Your task to perform on an android device: View the shopping cart on newegg. Image 0: 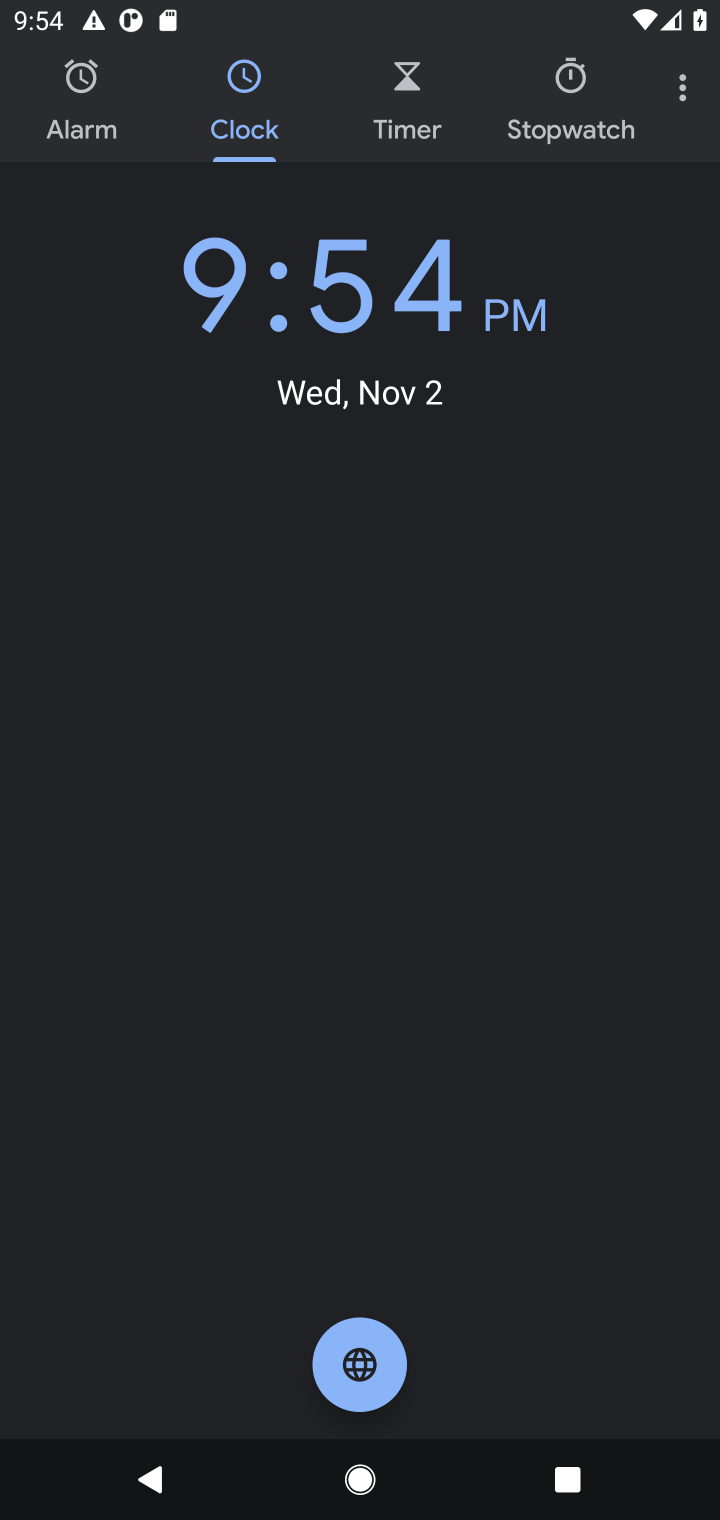
Step 0: press home button
Your task to perform on an android device: View the shopping cart on newegg. Image 1: 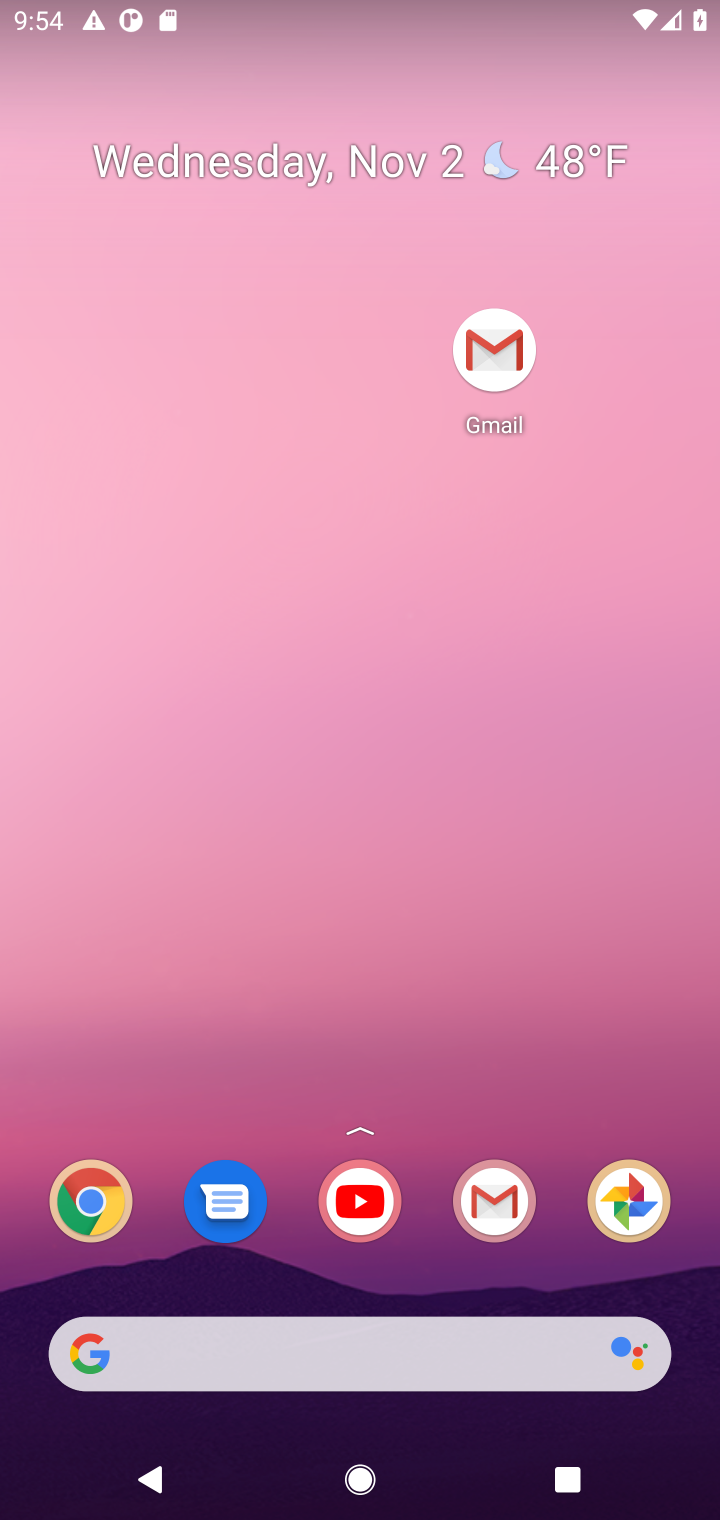
Step 1: drag from (422, 1256) to (245, 205)
Your task to perform on an android device: View the shopping cart on newegg. Image 2: 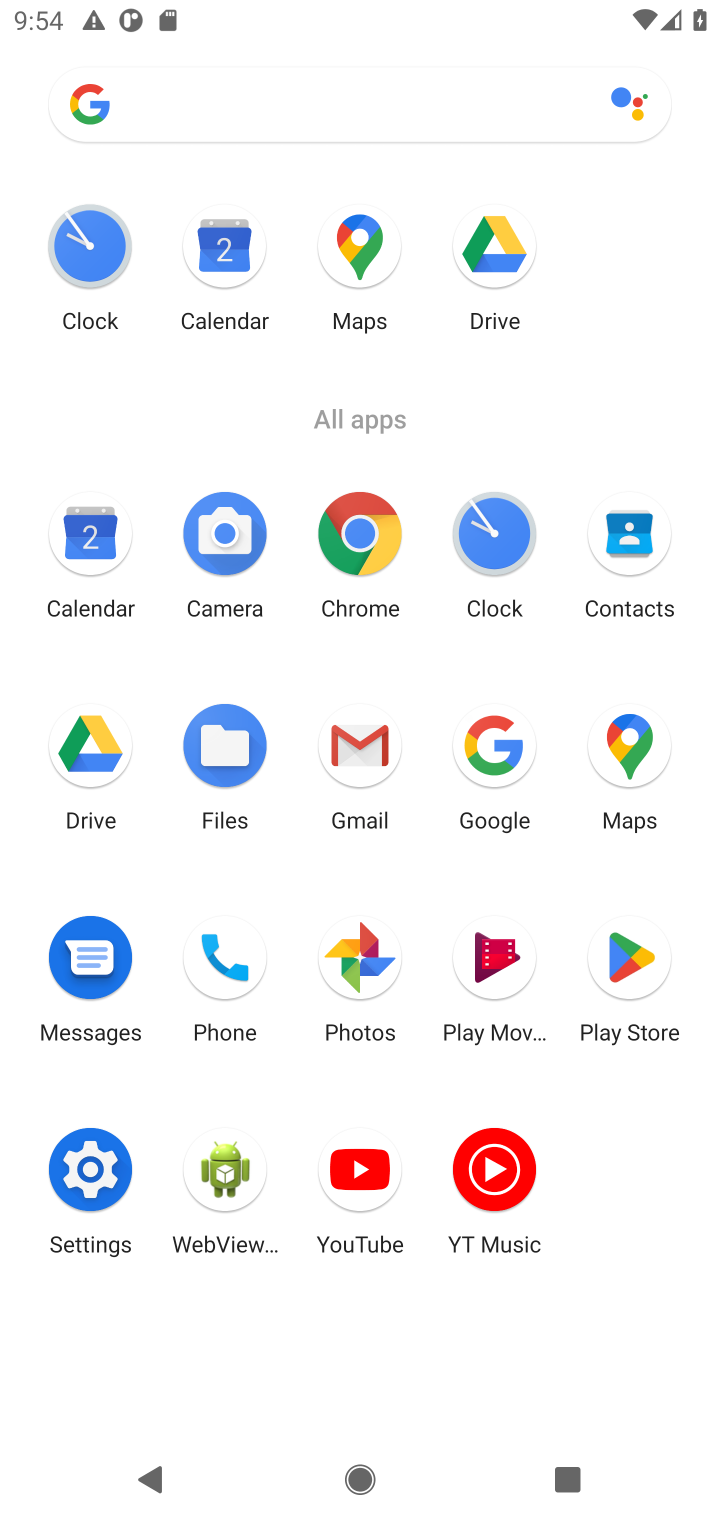
Step 2: click (363, 534)
Your task to perform on an android device: View the shopping cart on newegg. Image 3: 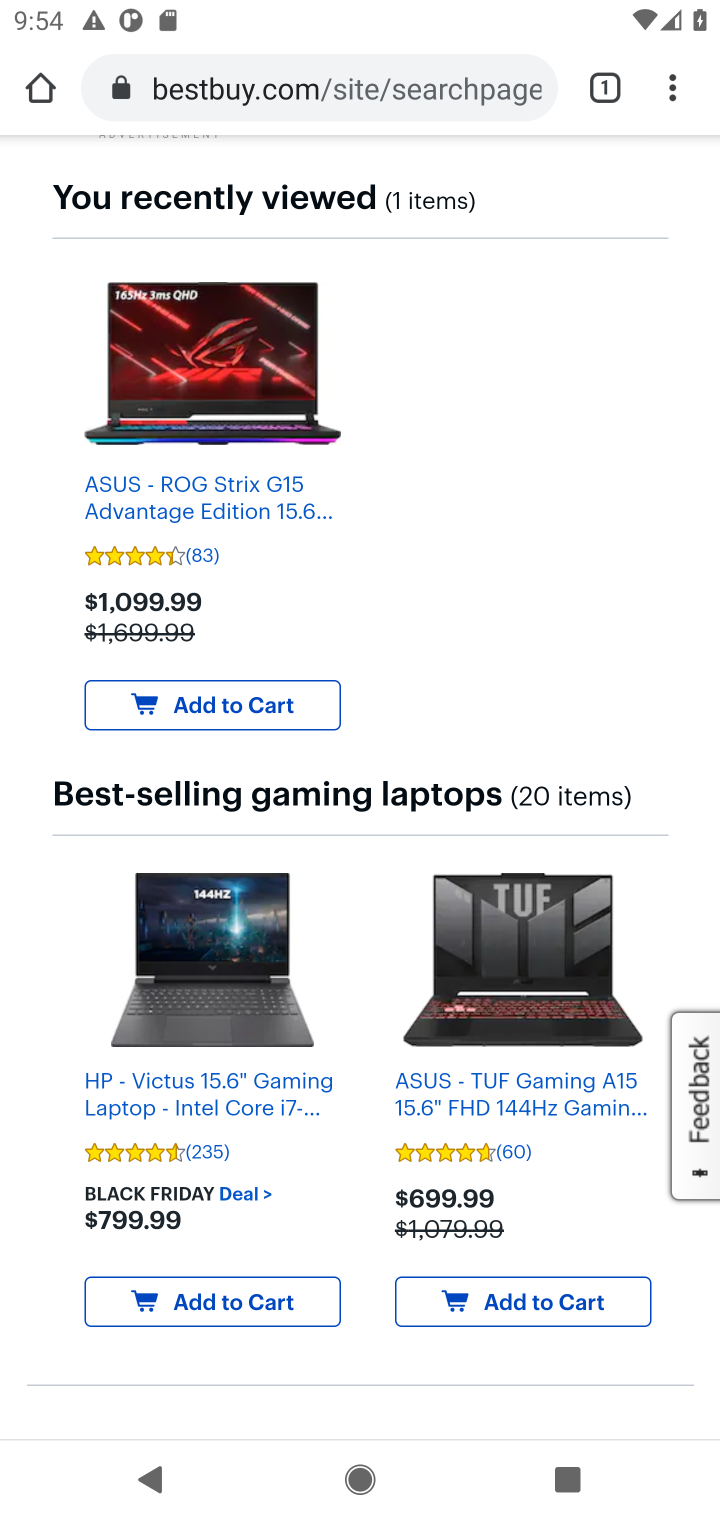
Step 3: click (319, 96)
Your task to perform on an android device: View the shopping cart on newegg. Image 4: 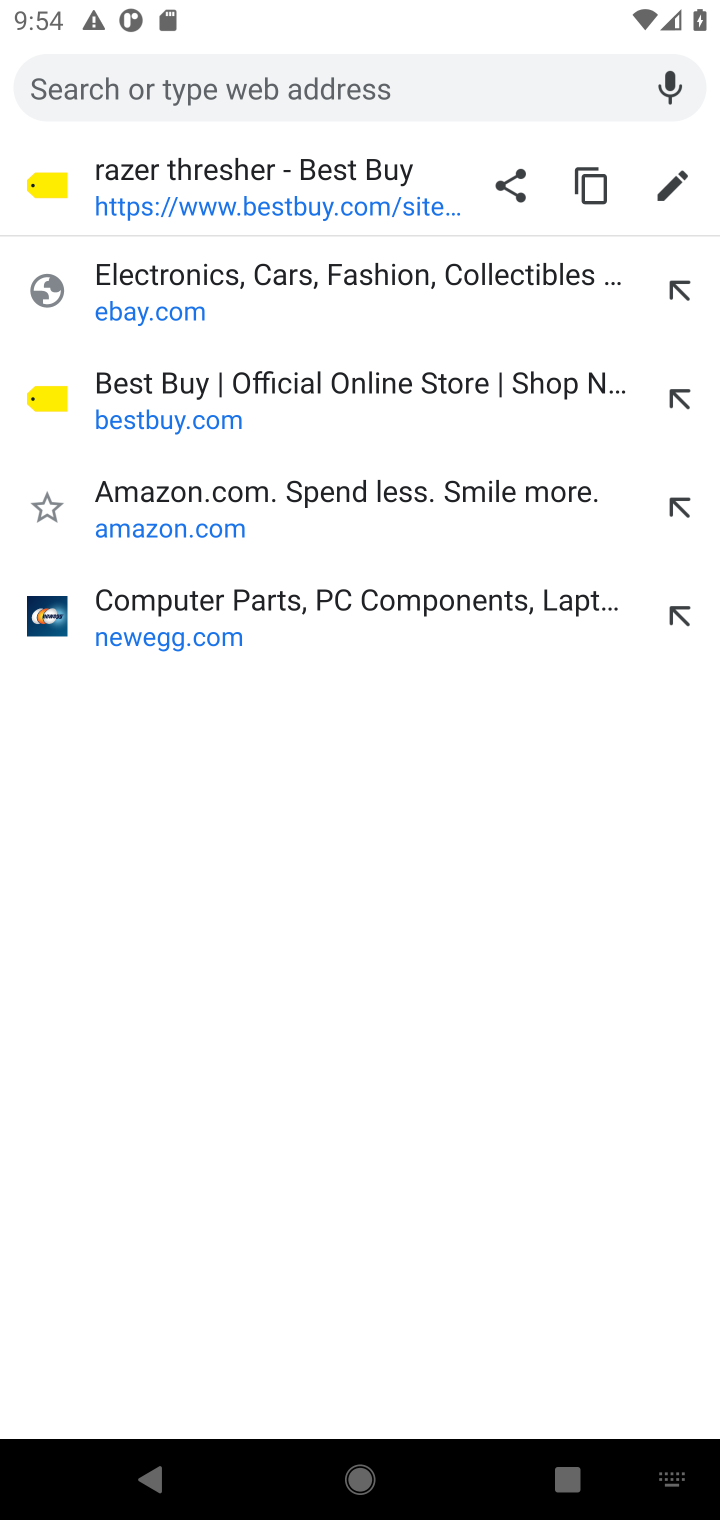
Step 4: type "newegg.com"
Your task to perform on an android device: View the shopping cart on newegg. Image 5: 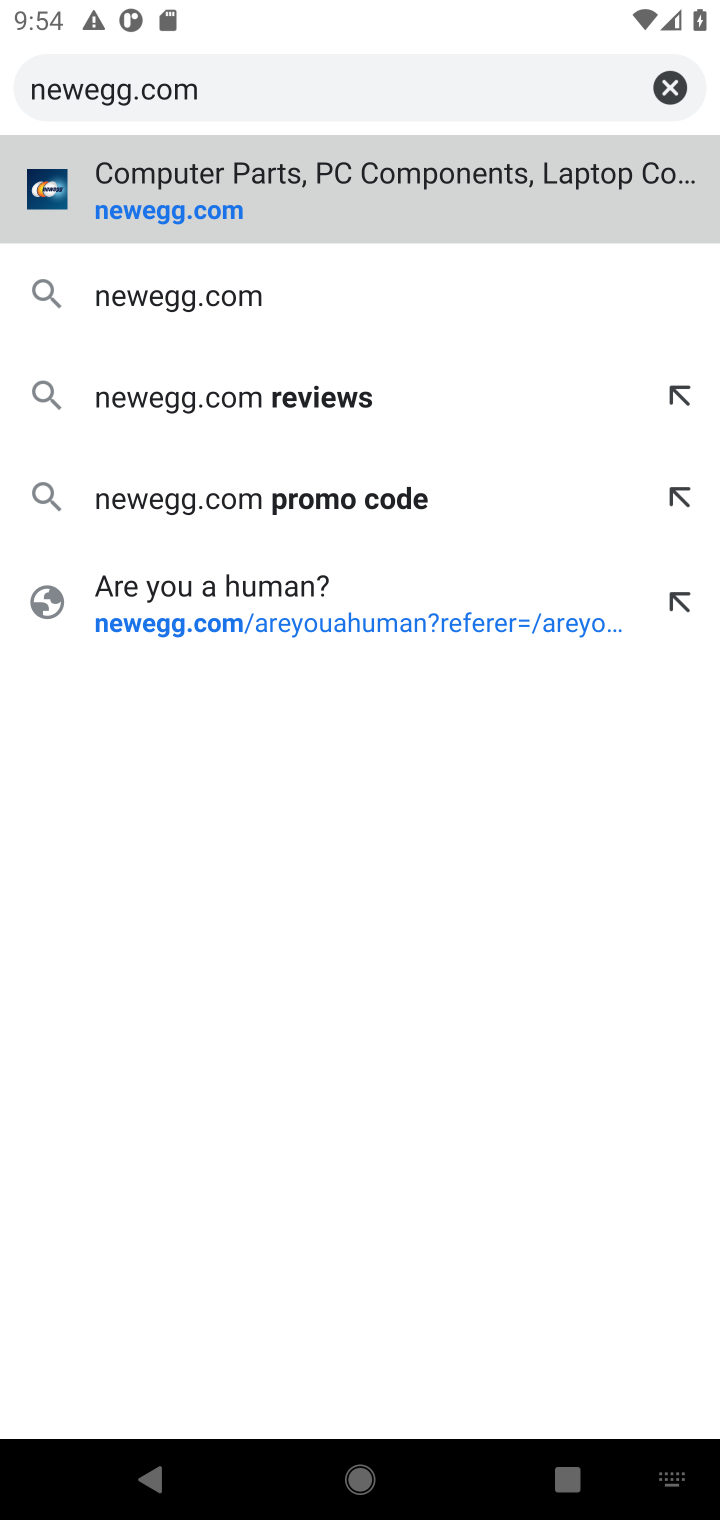
Step 5: press enter
Your task to perform on an android device: View the shopping cart on newegg. Image 6: 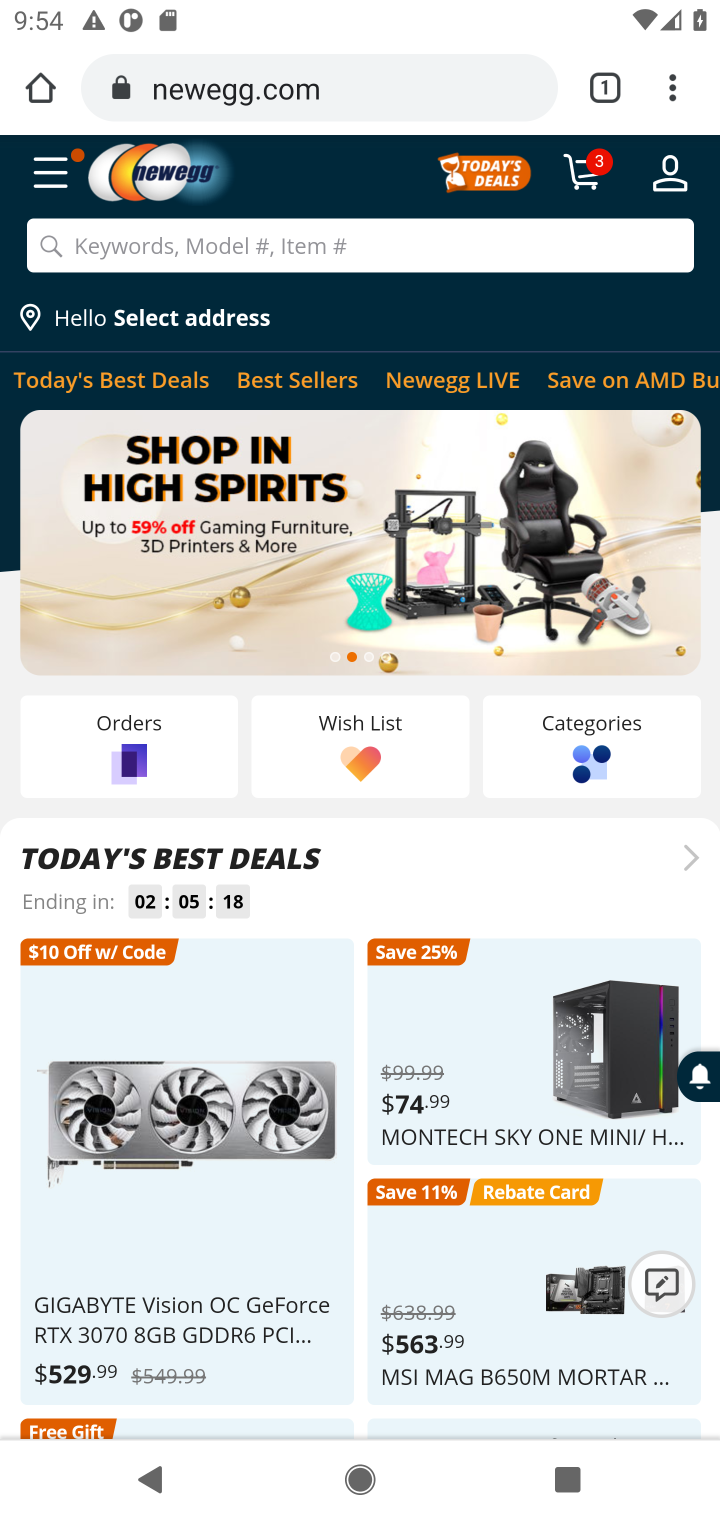
Step 6: click (578, 179)
Your task to perform on an android device: View the shopping cart on newegg. Image 7: 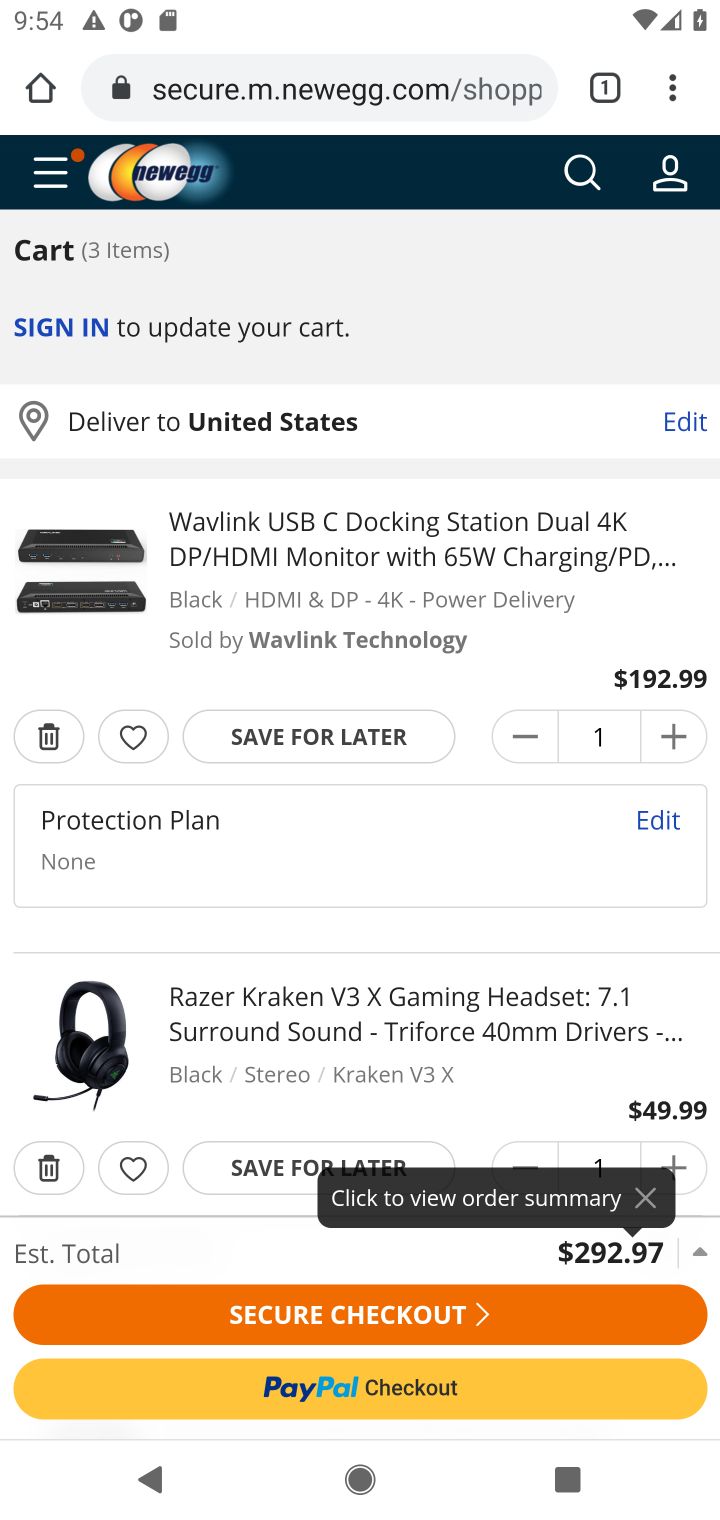
Step 7: task complete